Your task to perform on an android device: open sync settings in chrome Image 0: 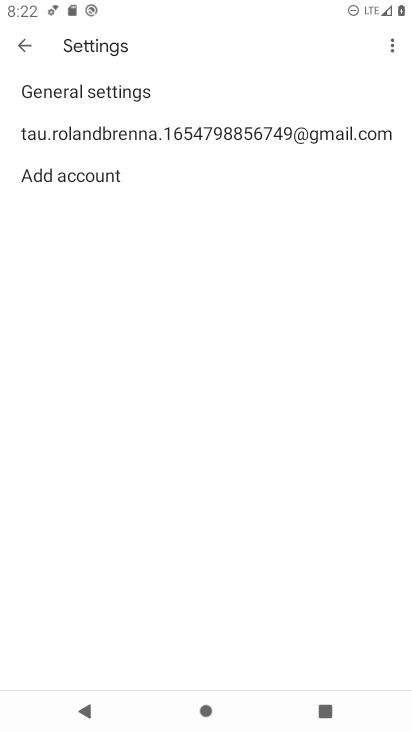
Step 0: press home button
Your task to perform on an android device: open sync settings in chrome Image 1: 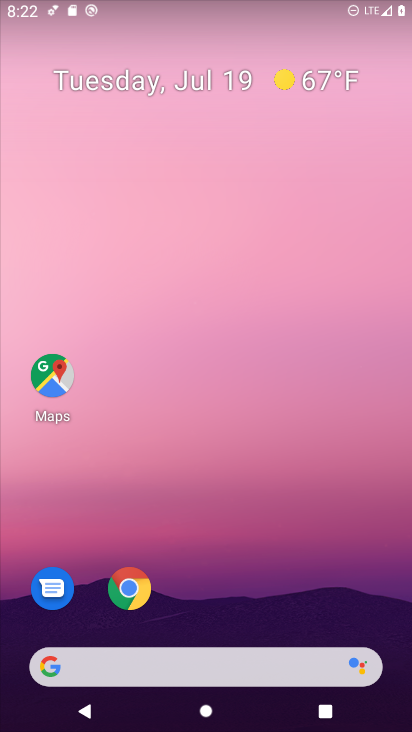
Step 1: drag from (363, 580) to (370, 80)
Your task to perform on an android device: open sync settings in chrome Image 2: 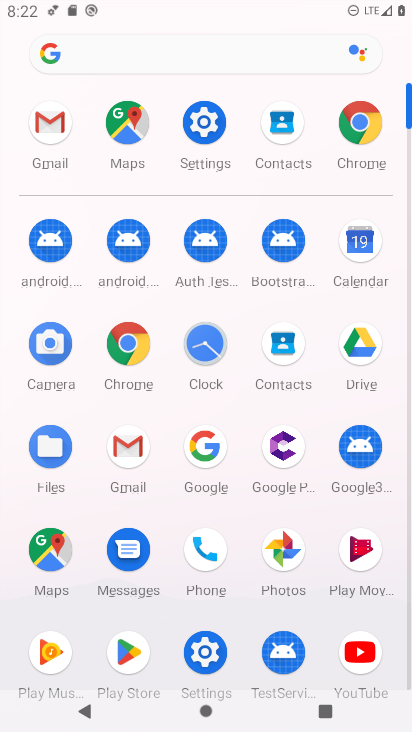
Step 2: click (129, 355)
Your task to perform on an android device: open sync settings in chrome Image 3: 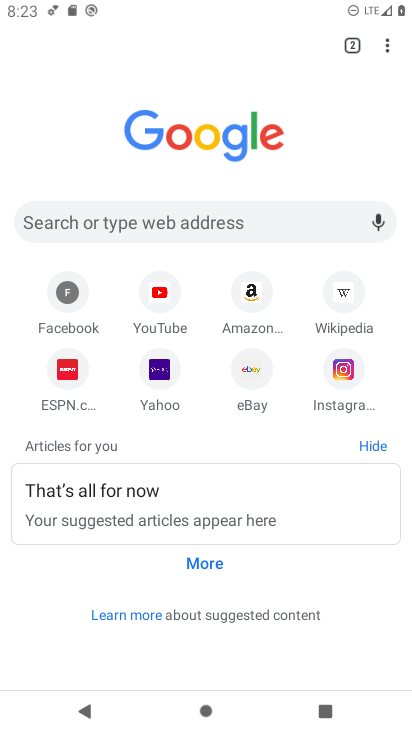
Step 3: click (387, 48)
Your task to perform on an android device: open sync settings in chrome Image 4: 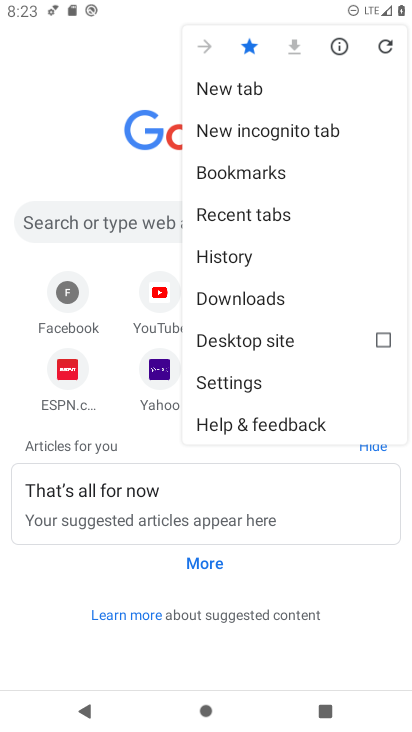
Step 4: click (248, 385)
Your task to perform on an android device: open sync settings in chrome Image 5: 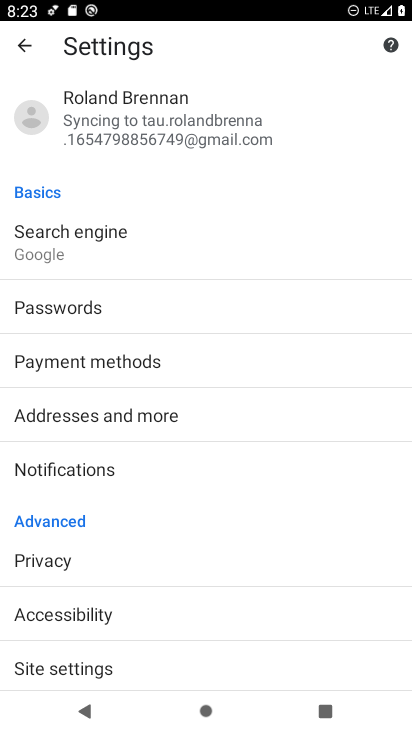
Step 5: drag from (298, 574) to (318, 407)
Your task to perform on an android device: open sync settings in chrome Image 6: 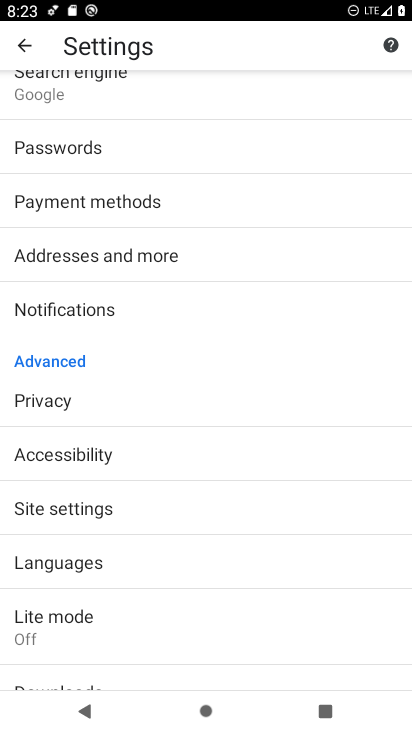
Step 6: drag from (307, 573) to (319, 413)
Your task to perform on an android device: open sync settings in chrome Image 7: 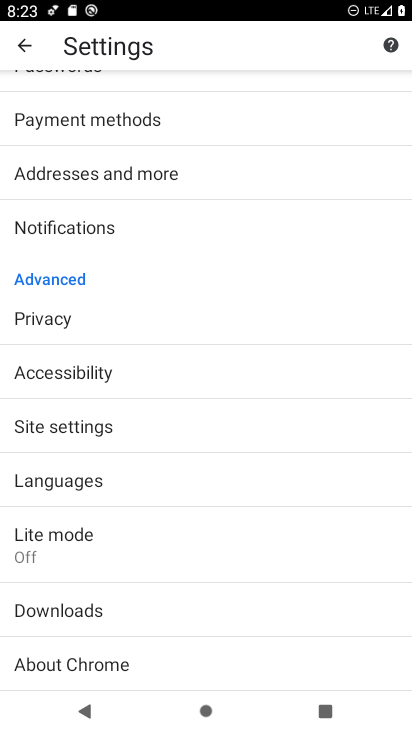
Step 7: click (320, 411)
Your task to perform on an android device: open sync settings in chrome Image 8: 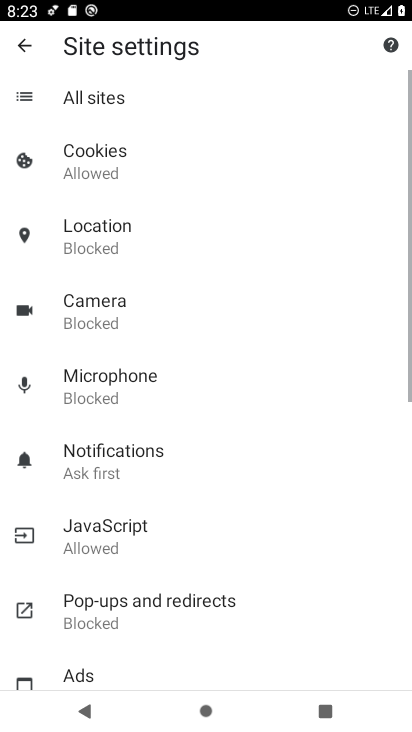
Step 8: drag from (327, 481) to (345, 357)
Your task to perform on an android device: open sync settings in chrome Image 9: 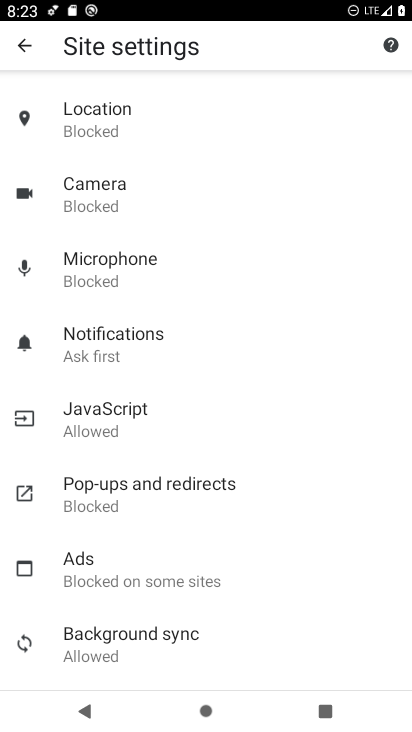
Step 9: drag from (346, 403) to (348, 265)
Your task to perform on an android device: open sync settings in chrome Image 10: 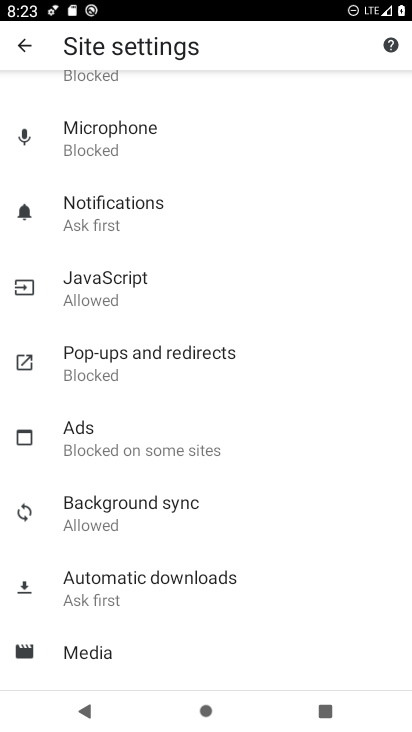
Step 10: click (253, 510)
Your task to perform on an android device: open sync settings in chrome Image 11: 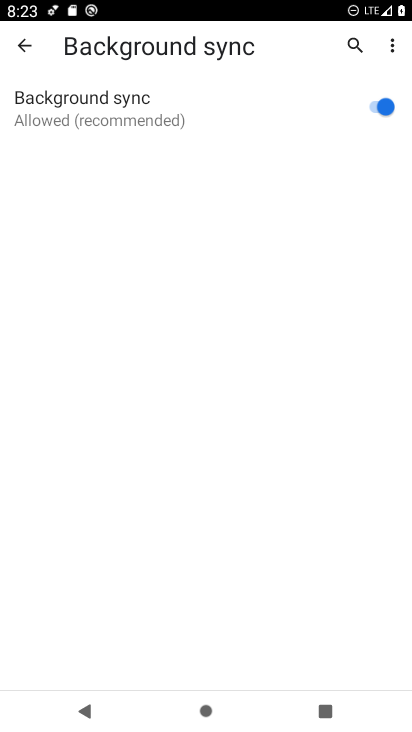
Step 11: task complete